Your task to perform on an android device: Go to Google Image 0: 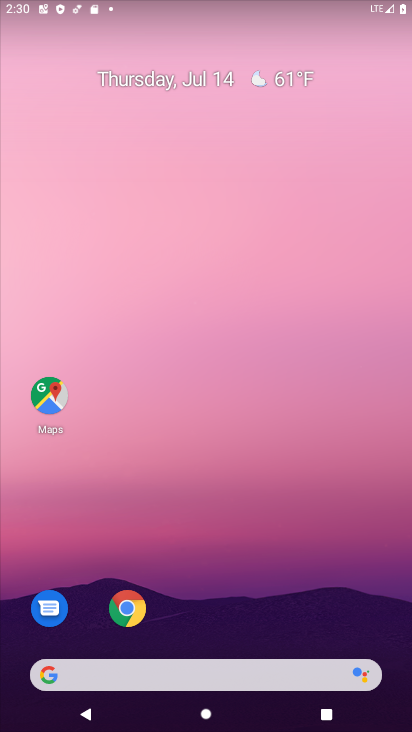
Step 0: drag from (226, 673) to (225, 325)
Your task to perform on an android device: Go to Google Image 1: 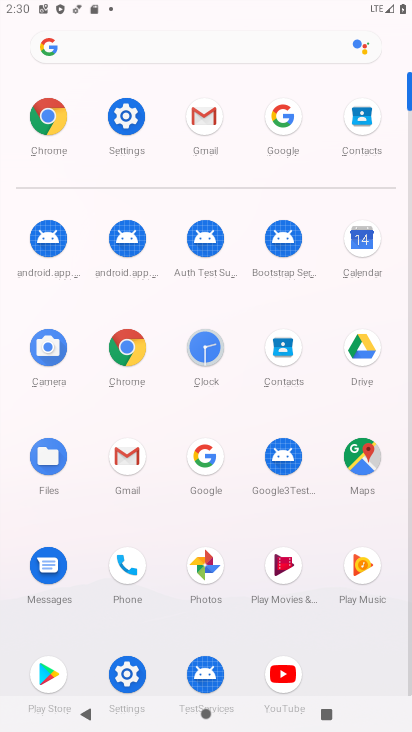
Step 1: click (208, 457)
Your task to perform on an android device: Go to Google Image 2: 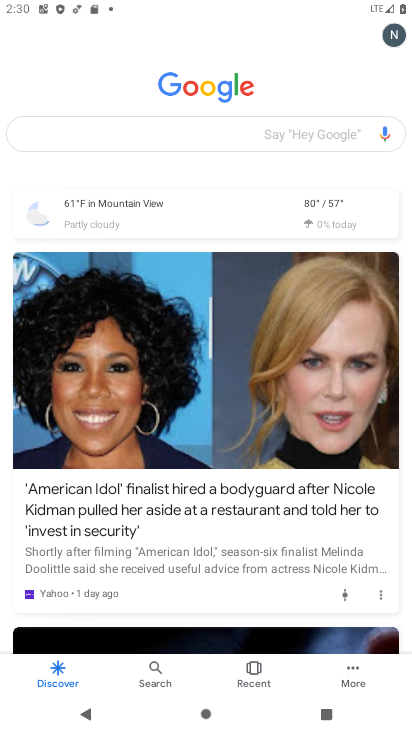
Step 2: task complete